Your task to perform on an android device: check out phone information Image 0: 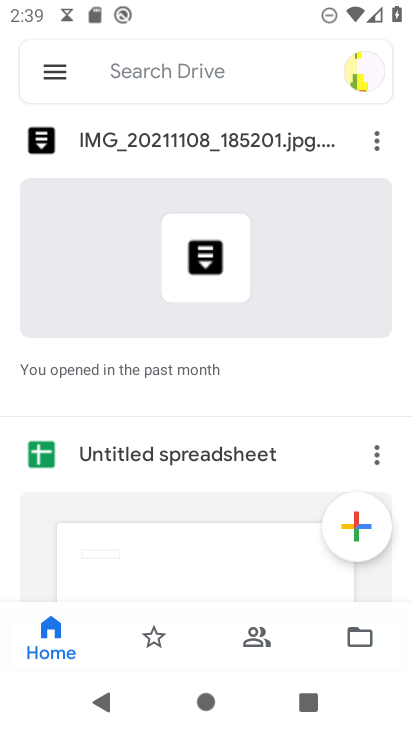
Step 0: press home button
Your task to perform on an android device: check out phone information Image 1: 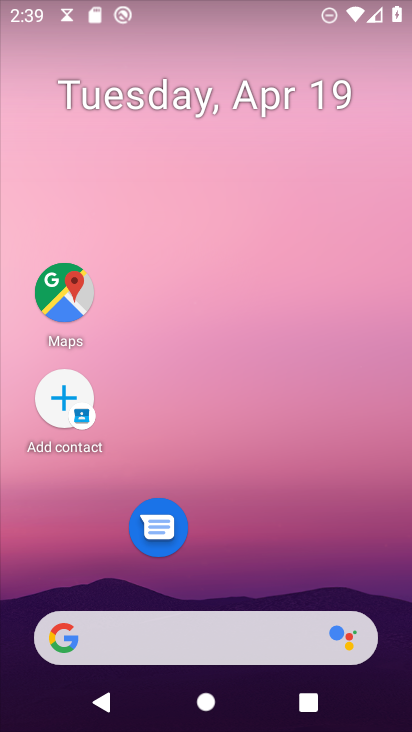
Step 1: drag from (243, 559) to (281, 51)
Your task to perform on an android device: check out phone information Image 2: 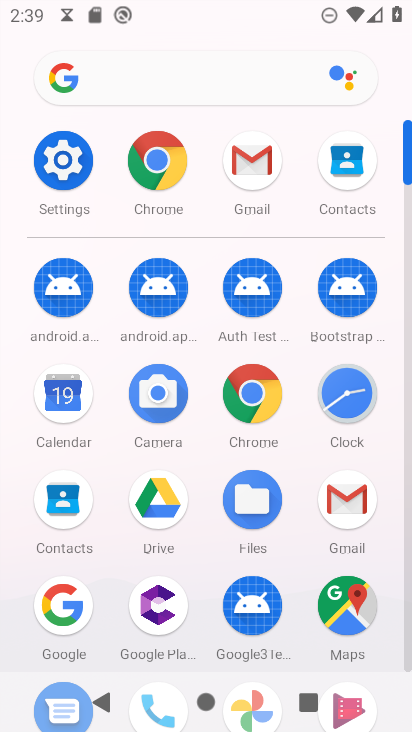
Step 2: click (64, 161)
Your task to perform on an android device: check out phone information Image 3: 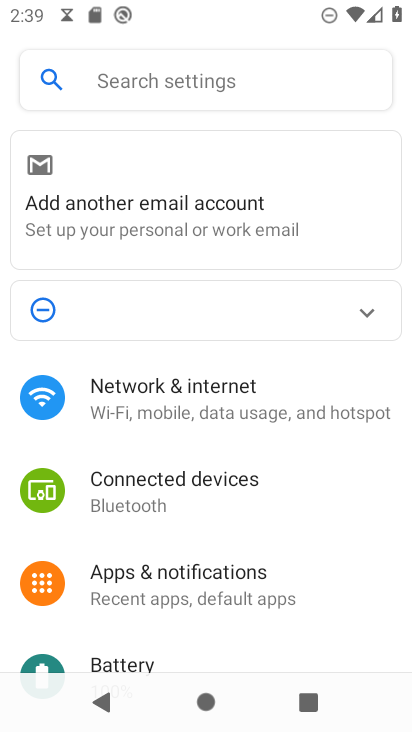
Step 3: drag from (273, 470) to (269, 339)
Your task to perform on an android device: check out phone information Image 4: 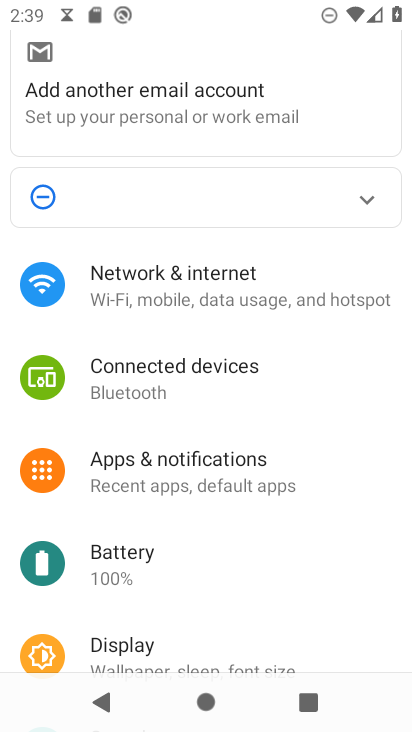
Step 4: drag from (247, 424) to (236, 349)
Your task to perform on an android device: check out phone information Image 5: 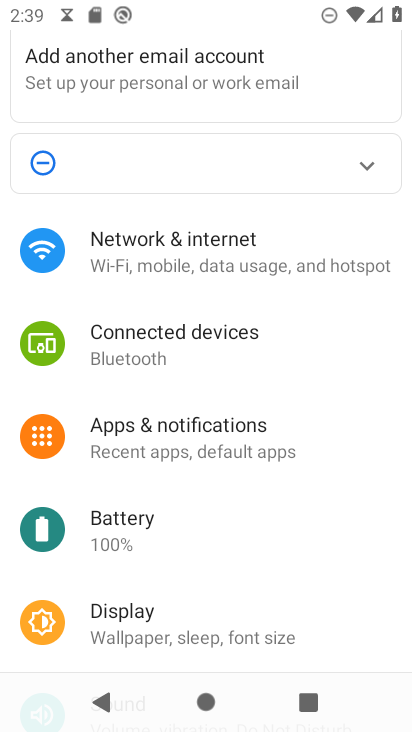
Step 5: drag from (234, 503) to (228, 370)
Your task to perform on an android device: check out phone information Image 6: 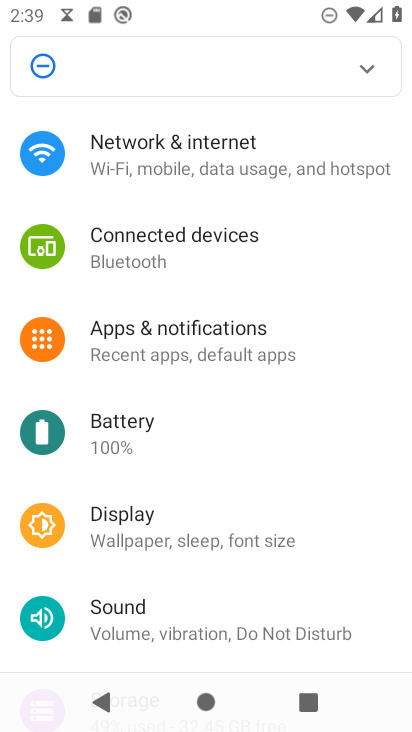
Step 6: drag from (223, 509) to (229, 387)
Your task to perform on an android device: check out phone information Image 7: 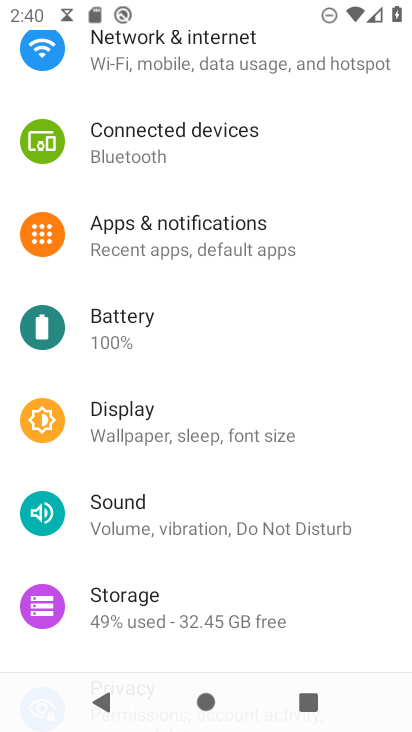
Step 7: drag from (235, 468) to (238, 361)
Your task to perform on an android device: check out phone information Image 8: 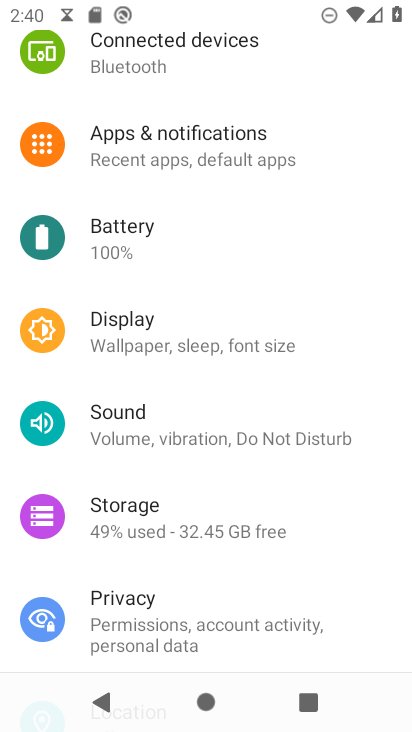
Step 8: drag from (214, 471) to (240, 359)
Your task to perform on an android device: check out phone information Image 9: 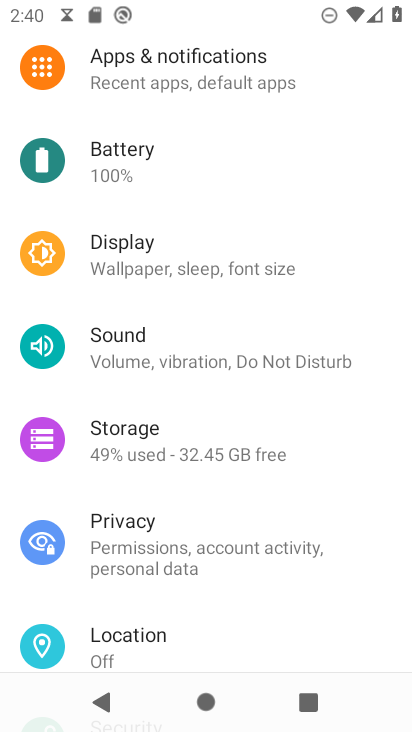
Step 9: drag from (230, 424) to (241, 330)
Your task to perform on an android device: check out phone information Image 10: 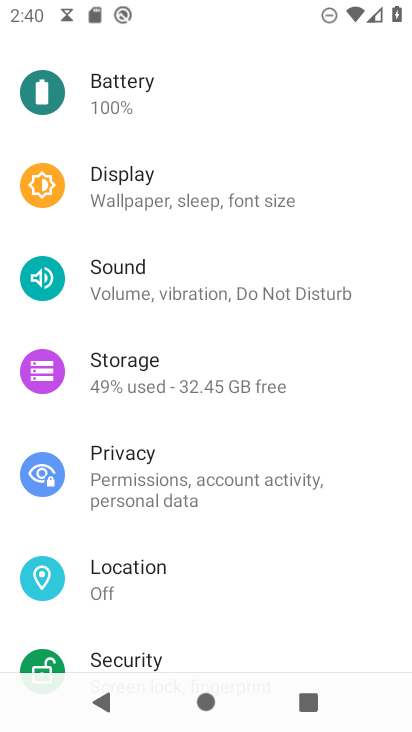
Step 10: drag from (234, 420) to (251, 330)
Your task to perform on an android device: check out phone information Image 11: 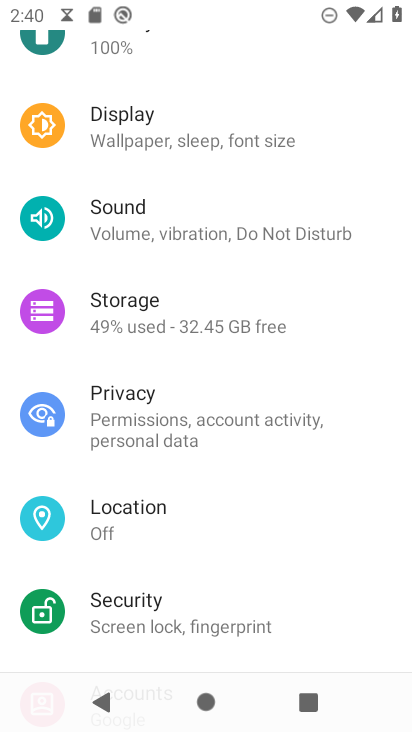
Step 11: drag from (225, 472) to (263, 373)
Your task to perform on an android device: check out phone information Image 12: 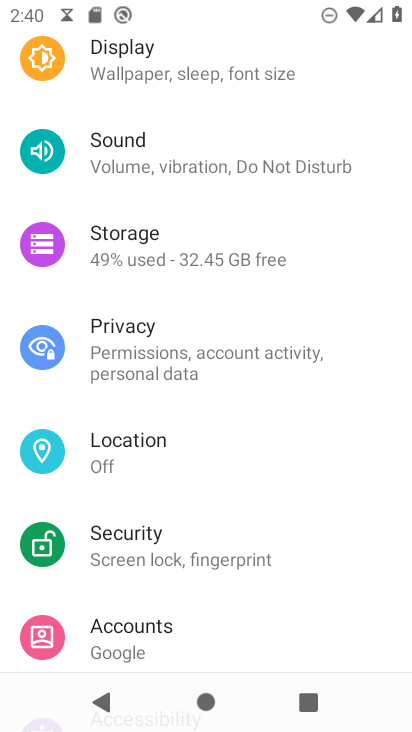
Step 12: drag from (219, 474) to (240, 373)
Your task to perform on an android device: check out phone information Image 13: 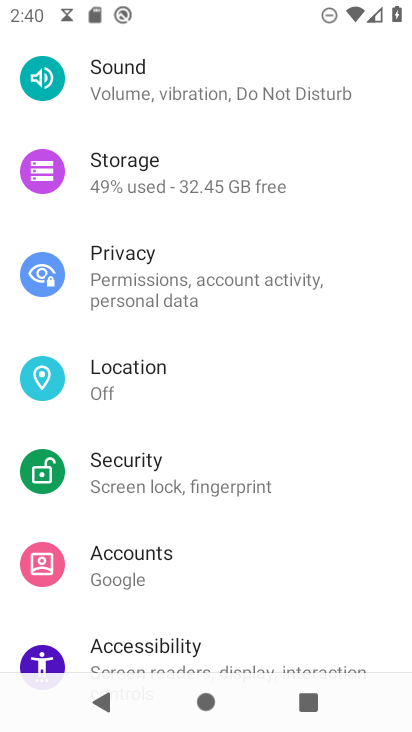
Step 13: drag from (221, 425) to (238, 357)
Your task to perform on an android device: check out phone information Image 14: 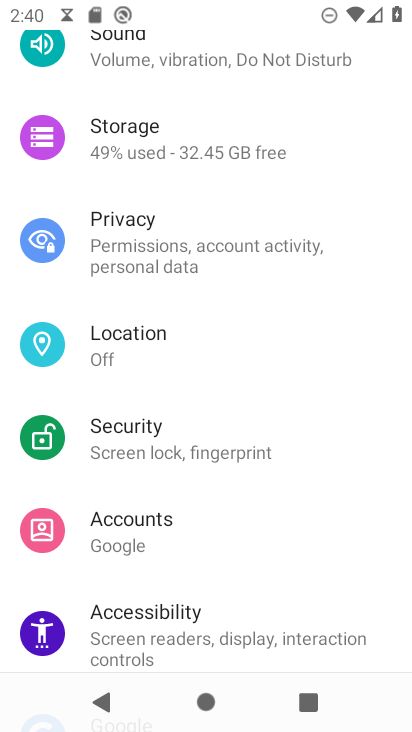
Step 14: drag from (220, 505) to (277, 424)
Your task to perform on an android device: check out phone information Image 15: 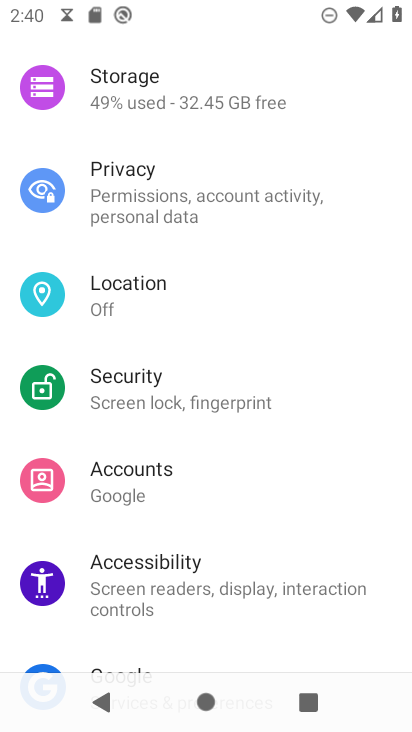
Step 15: drag from (225, 503) to (223, 429)
Your task to perform on an android device: check out phone information Image 16: 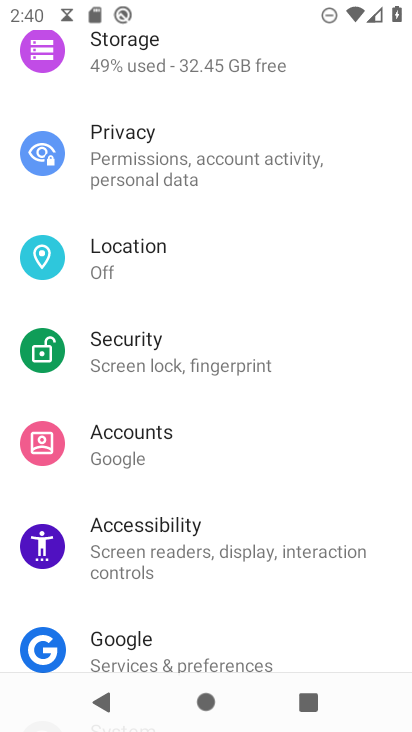
Step 16: drag from (222, 475) to (247, 380)
Your task to perform on an android device: check out phone information Image 17: 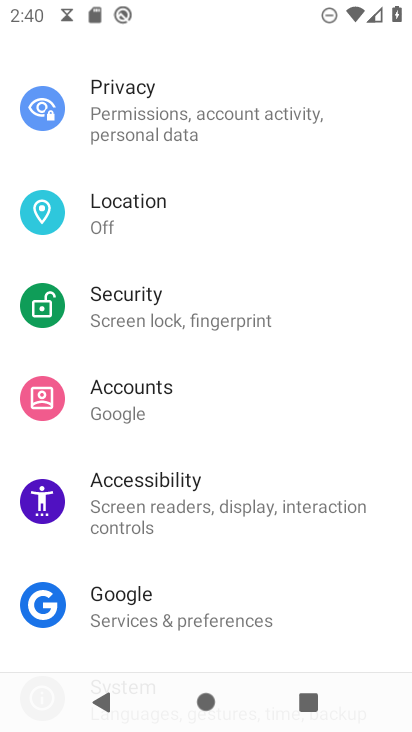
Step 17: drag from (255, 532) to (279, 438)
Your task to perform on an android device: check out phone information Image 18: 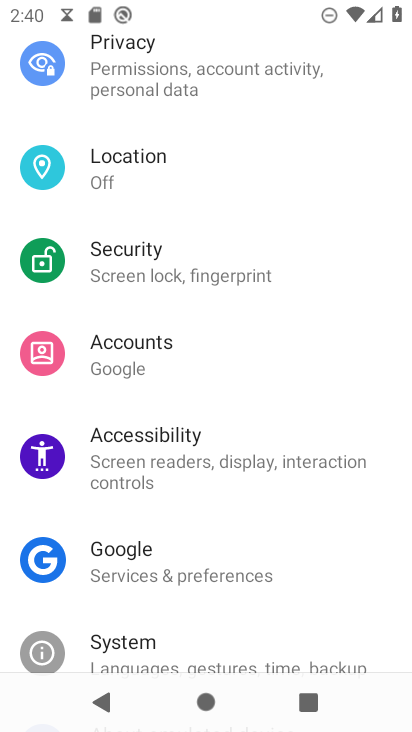
Step 18: drag from (229, 555) to (262, 490)
Your task to perform on an android device: check out phone information Image 19: 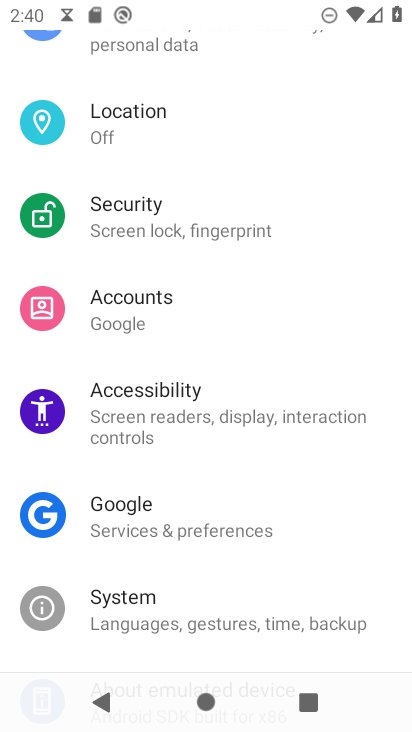
Step 19: drag from (221, 586) to (247, 485)
Your task to perform on an android device: check out phone information Image 20: 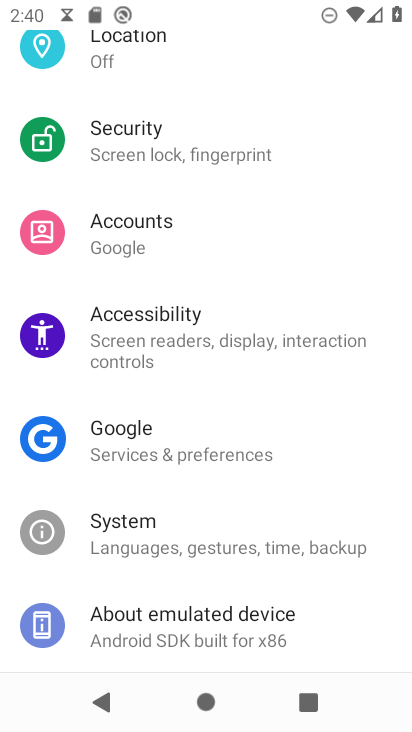
Step 20: drag from (223, 595) to (239, 514)
Your task to perform on an android device: check out phone information Image 21: 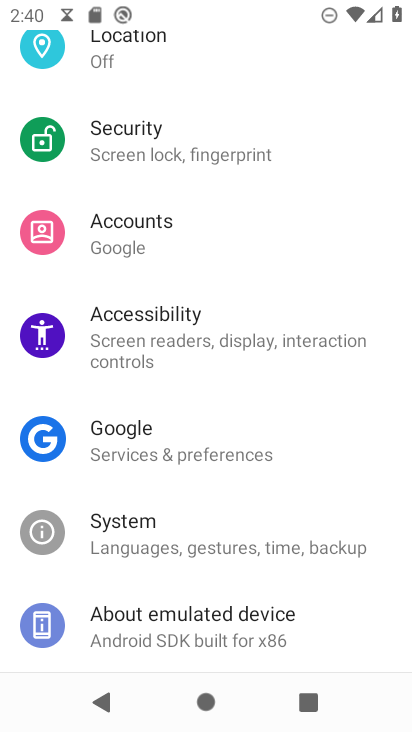
Step 21: click (195, 618)
Your task to perform on an android device: check out phone information Image 22: 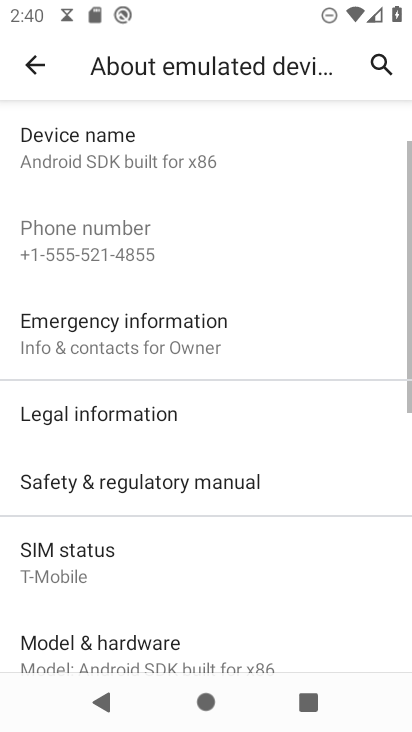
Step 22: task complete